Your task to perform on an android device: find snoozed emails in the gmail app Image 0: 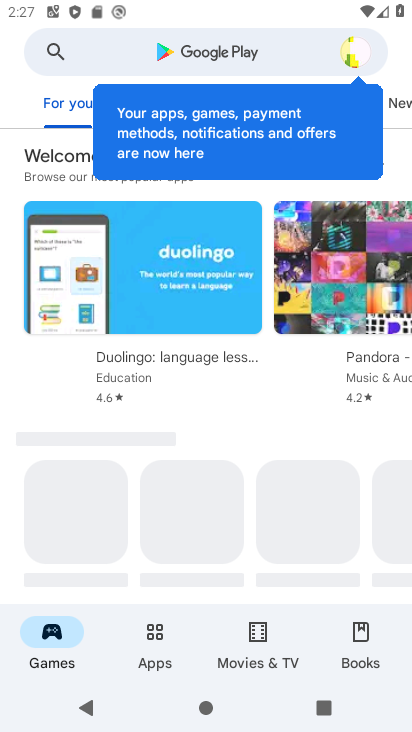
Step 0: press home button
Your task to perform on an android device: find snoozed emails in the gmail app Image 1: 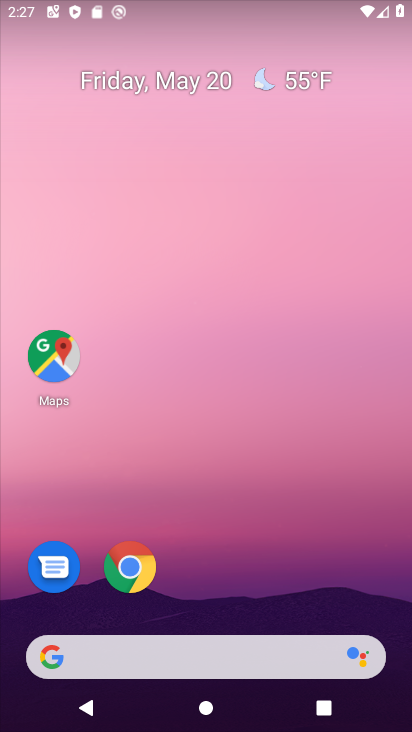
Step 1: drag from (161, 630) to (186, 212)
Your task to perform on an android device: find snoozed emails in the gmail app Image 2: 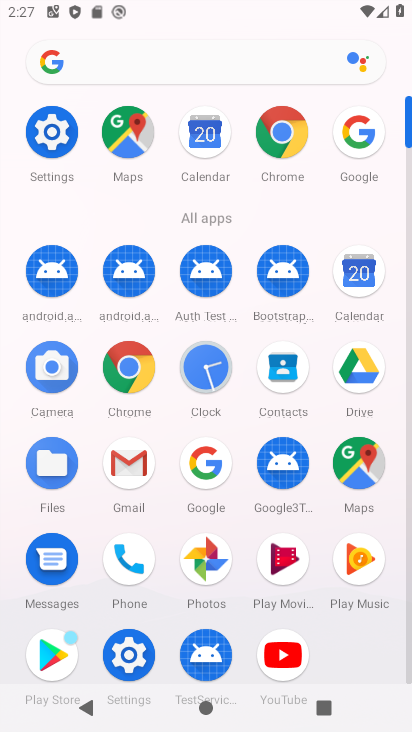
Step 2: click (137, 467)
Your task to perform on an android device: find snoozed emails in the gmail app Image 3: 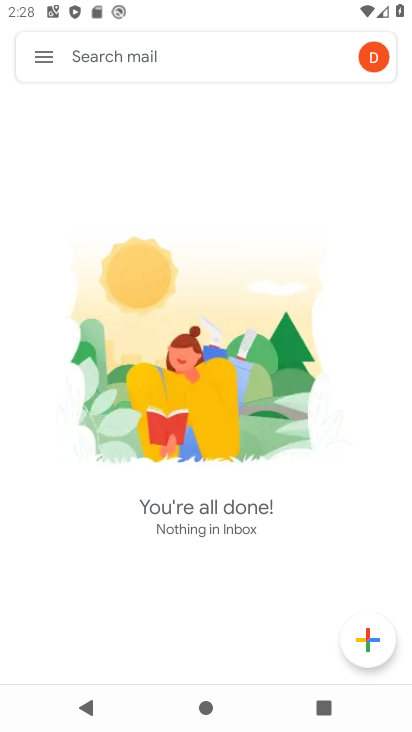
Step 3: click (35, 58)
Your task to perform on an android device: find snoozed emails in the gmail app Image 4: 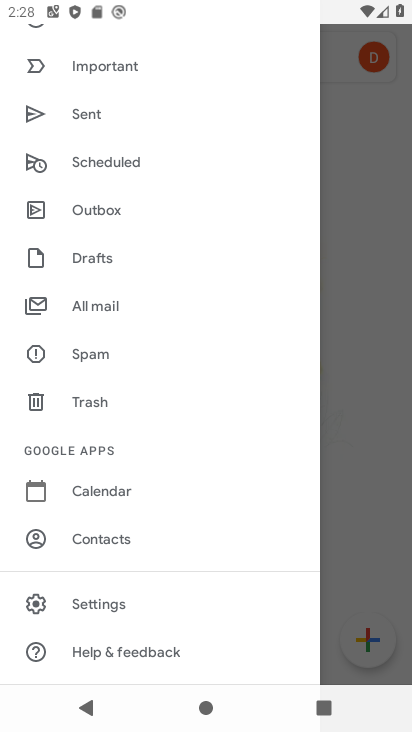
Step 4: drag from (111, 102) to (138, 482)
Your task to perform on an android device: find snoozed emails in the gmail app Image 5: 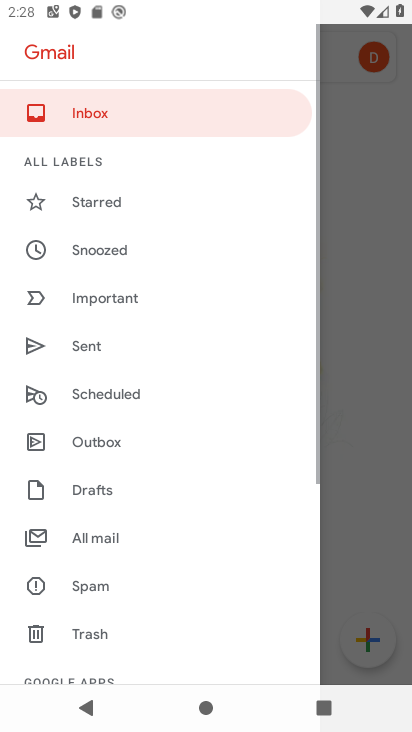
Step 5: click (80, 242)
Your task to perform on an android device: find snoozed emails in the gmail app Image 6: 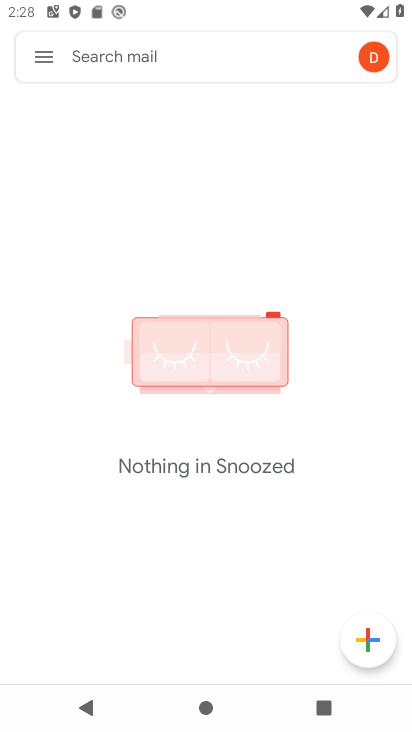
Step 6: task complete